Your task to perform on an android device: see tabs open on other devices in the chrome app Image 0: 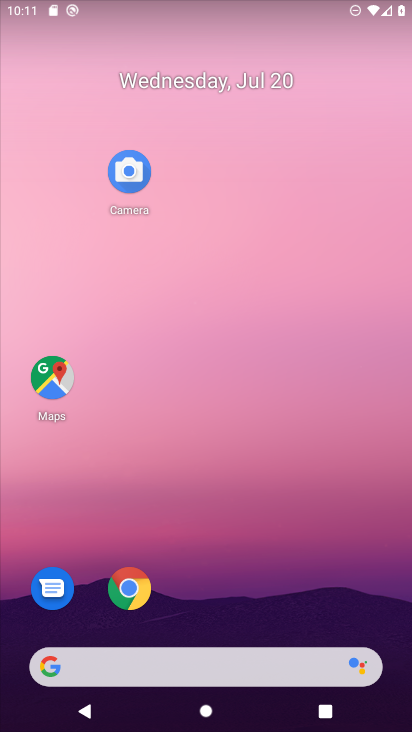
Step 0: press home button
Your task to perform on an android device: see tabs open on other devices in the chrome app Image 1: 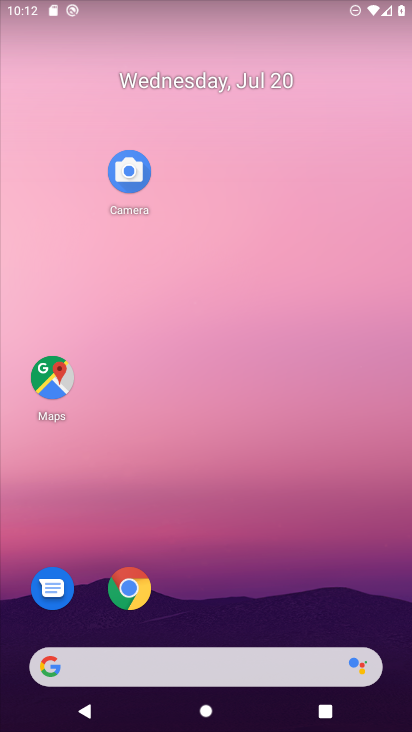
Step 1: drag from (242, 579) to (374, 96)
Your task to perform on an android device: see tabs open on other devices in the chrome app Image 2: 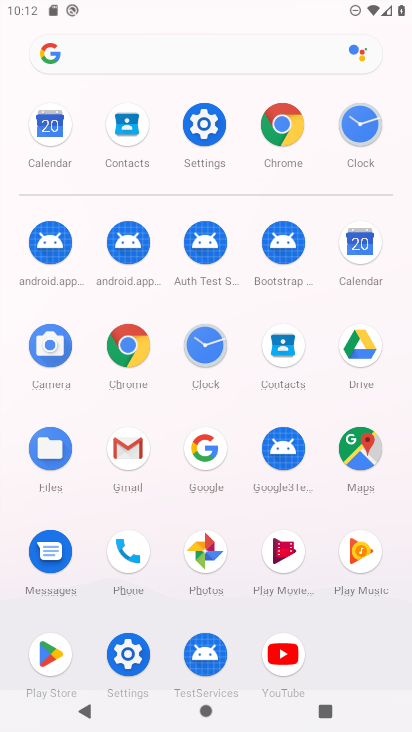
Step 2: click (280, 122)
Your task to perform on an android device: see tabs open on other devices in the chrome app Image 3: 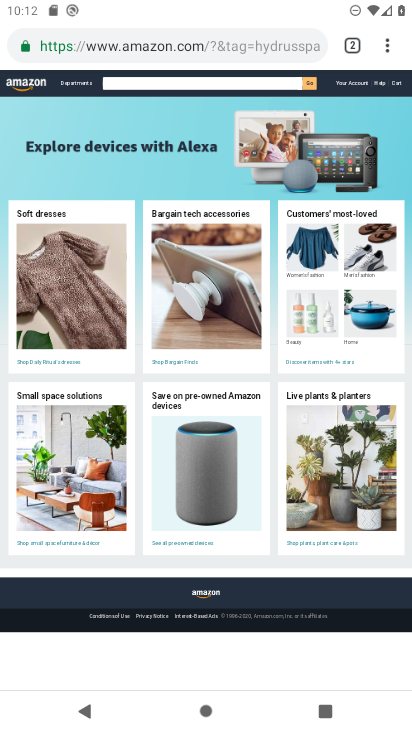
Step 3: task complete